Your task to perform on an android device: check the backup settings in the google photos Image 0: 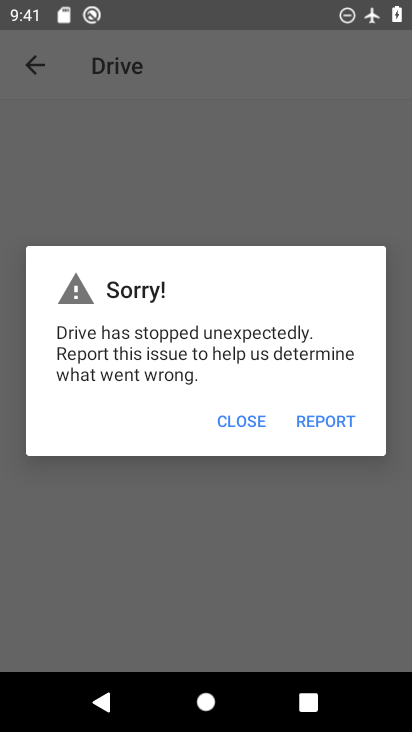
Step 0: press home button
Your task to perform on an android device: check the backup settings in the google photos Image 1: 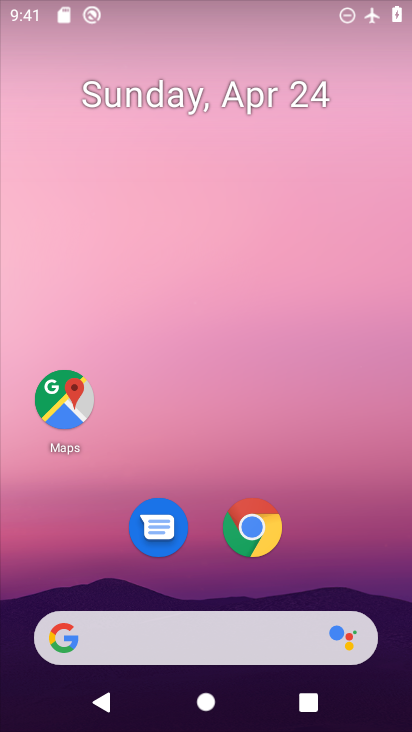
Step 1: drag from (394, 603) to (215, 87)
Your task to perform on an android device: check the backup settings in the google photos Image 2: 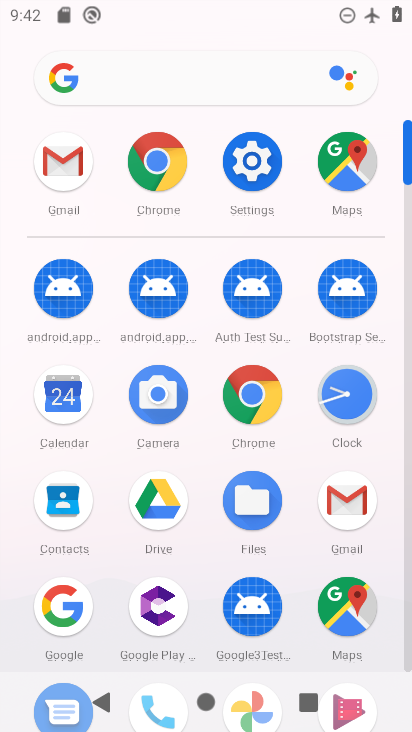
Step 2: click (407, 669)
Your task to perform on an android device: check the backup settings in the google photos Image 3: 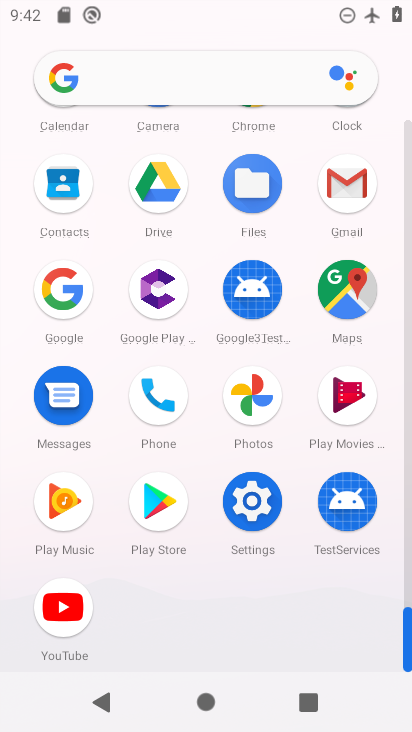
Step 3: click (240, 397)
Your task to perform on an android device: check the backup settings in the google photos Image 4: 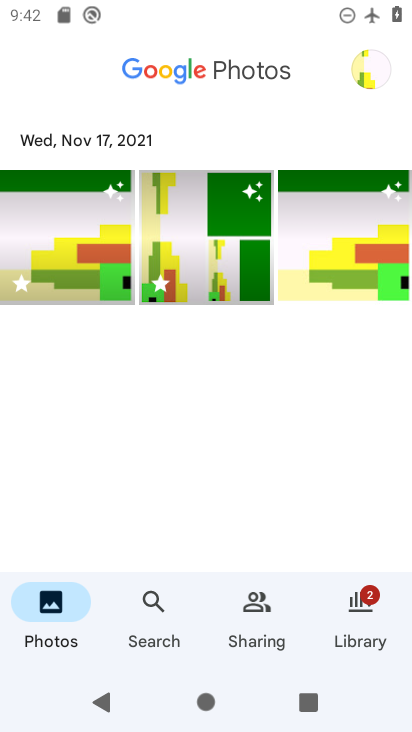
Step 4: click (367, 61)
Your task to perform on an android device: check the backup settings in the google photos Image 5: 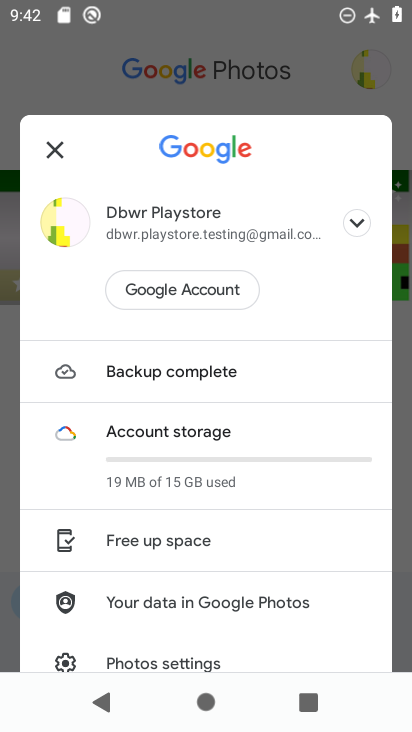
Step 5: click (240, 368)
Your task to perform on an android device: check the backup settings in the google photos Image 6: 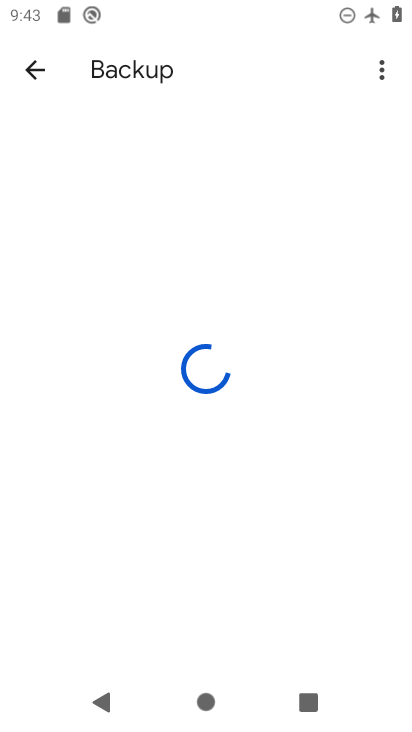
Step 6: task complete